Your task to perform on an android device: Open accessibility settings Image 0: 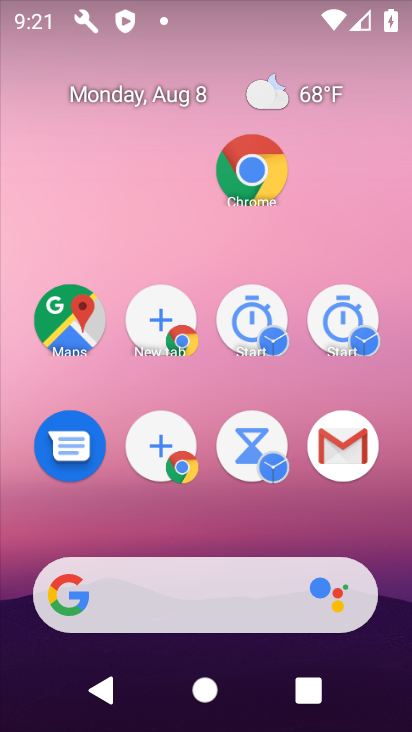
Step 0: drag from (213, 541) to (226, 145)
Your task to perform on an android device: Open accessibility settings Image 1: 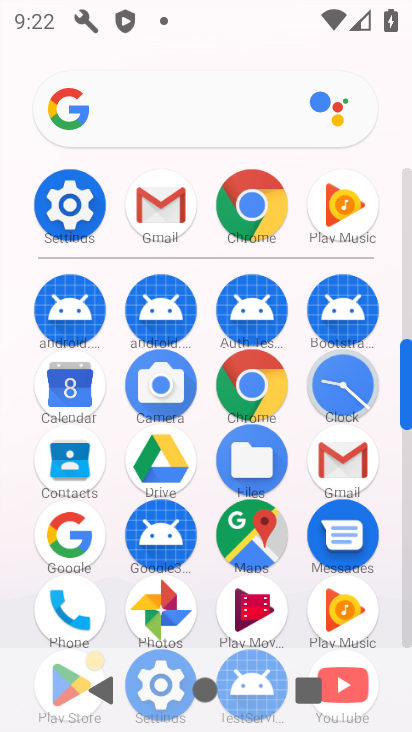
Step 1: click (66, 209)
Your task to perform on an android device: Open accessibility settings Image 2: 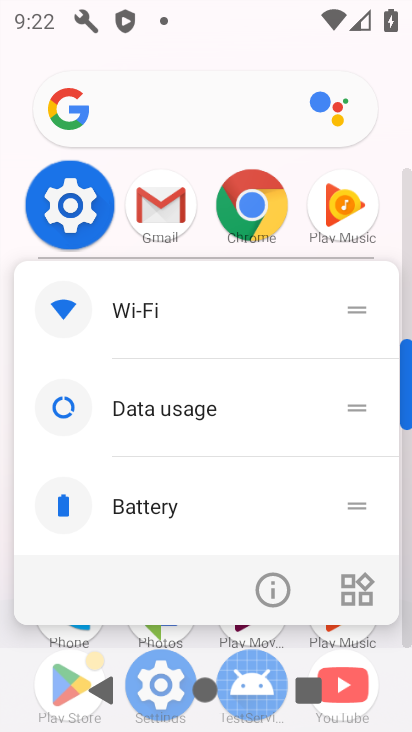
Step 2: click (65, 209)
Your task to perform on an android device: Open accessibility settings Image 3: 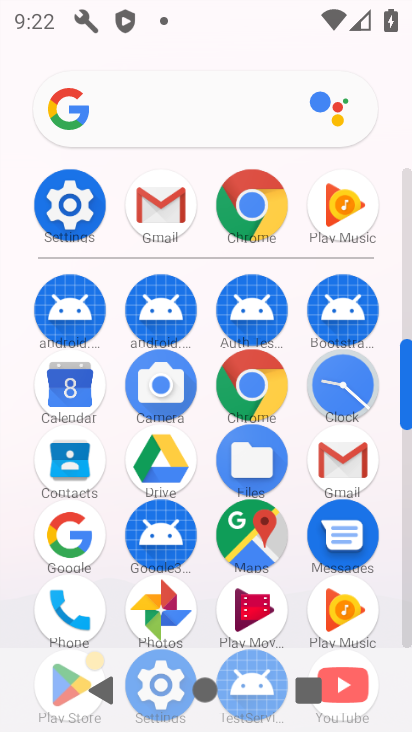
Step 3: click (64, 208)
Your task to perform on an android device: Open accessibility settings Image 4: 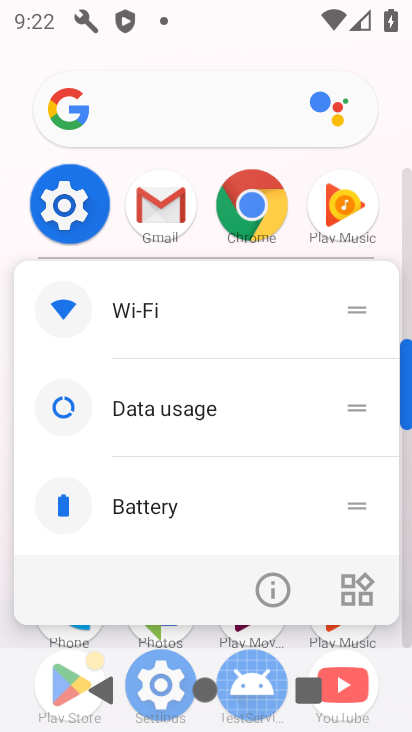
Step 4: click (80, 213)
Your task to perform on an android device: Open accessibility settings Image 5: 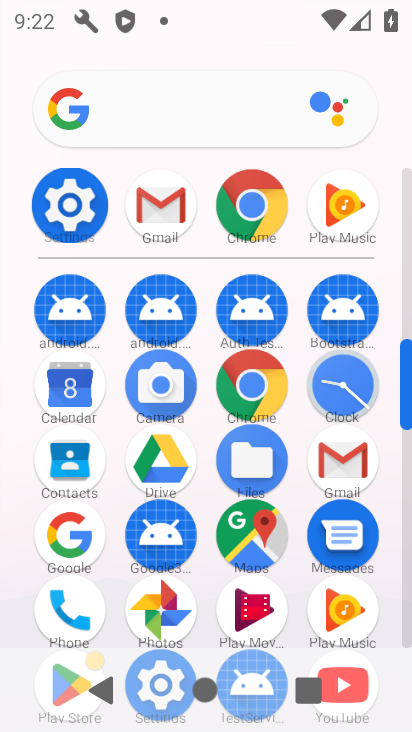
Step 5: click (82, 227)
Your task to perform on an android device: Open accessibility settings Image 6: 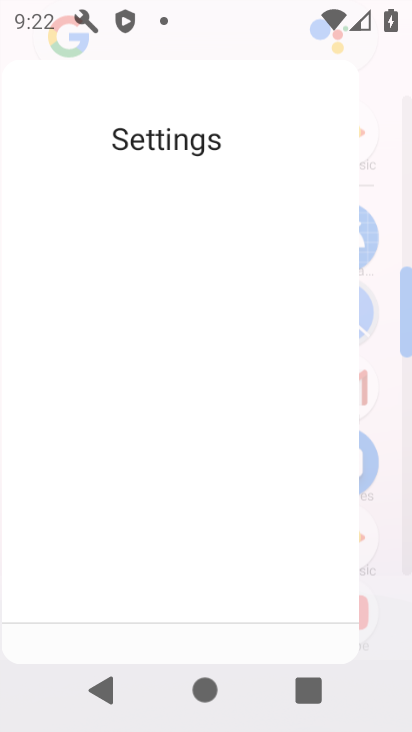
Step 6: click (75, 232)
Your task to perform on an android device: Open accessibility settings Image 7: 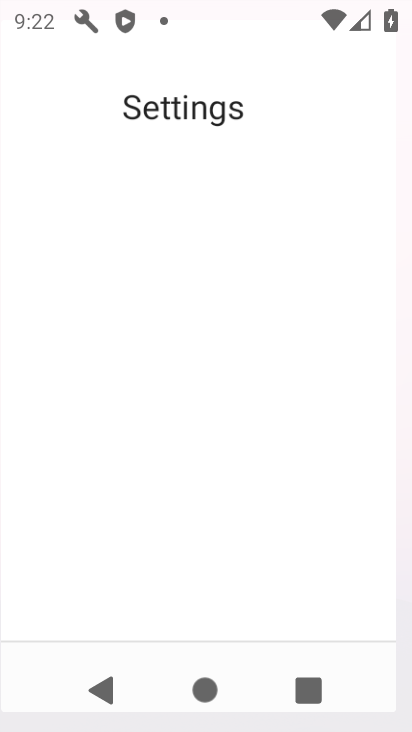
Step 7: click (78, 231)
Your task to perform on an android device: Open accessibility settings Image 8: 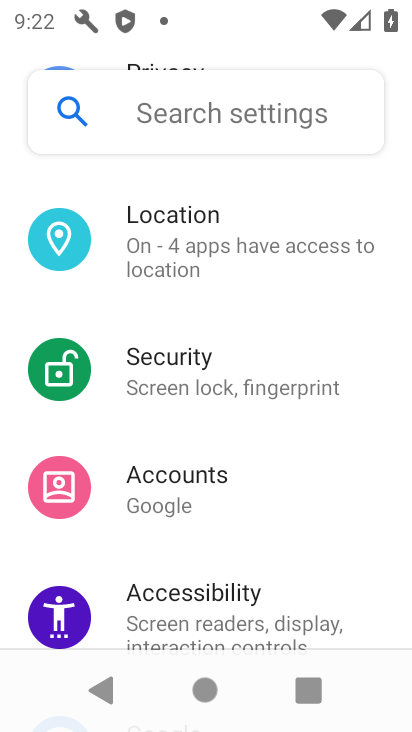
Step 8: click (163, 610)
Your task to perform on an android device: Open accessibility settings Image 9: 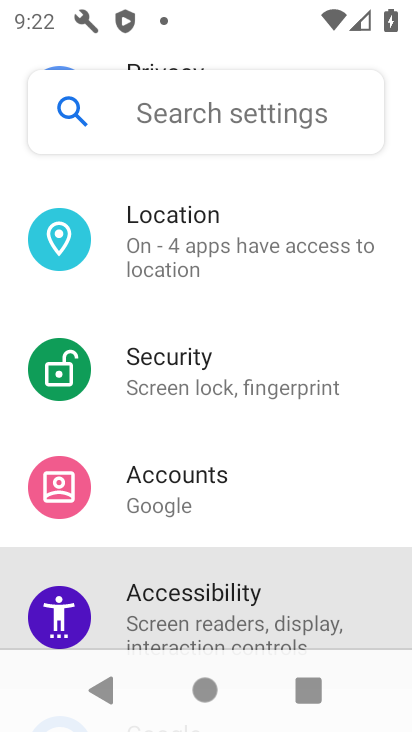
Step 9: click (164, 608)
Your task to perform on an android device: Open accessibility settings Image 10: 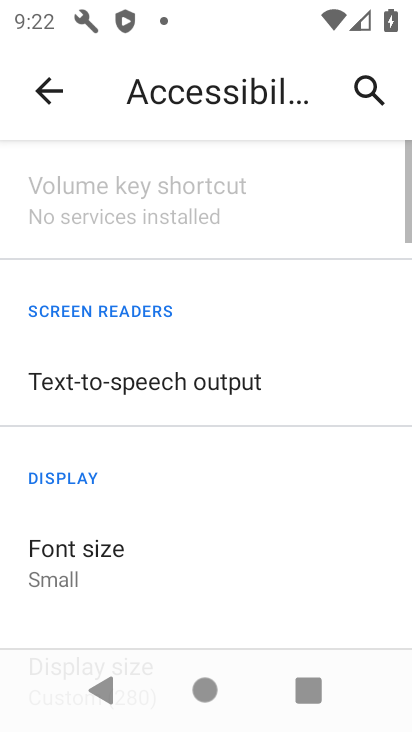
Step 10: click (177, 591)
Your task to perform on an android device: Open accessibility settings Image 11: 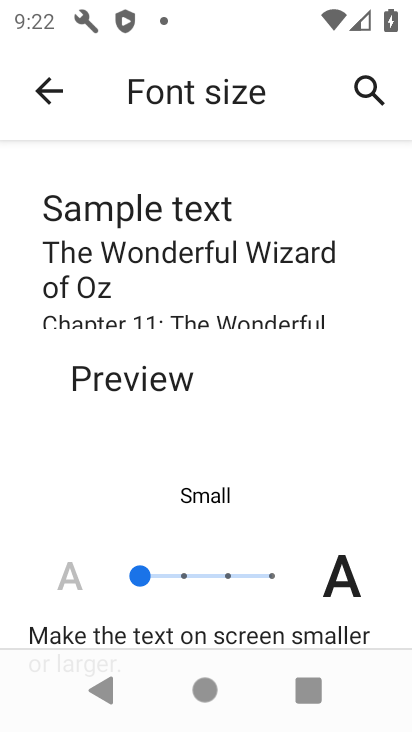
Step 11: click (47, 90)
Your task to perform on an android device: Open accessibility settings Image 12: 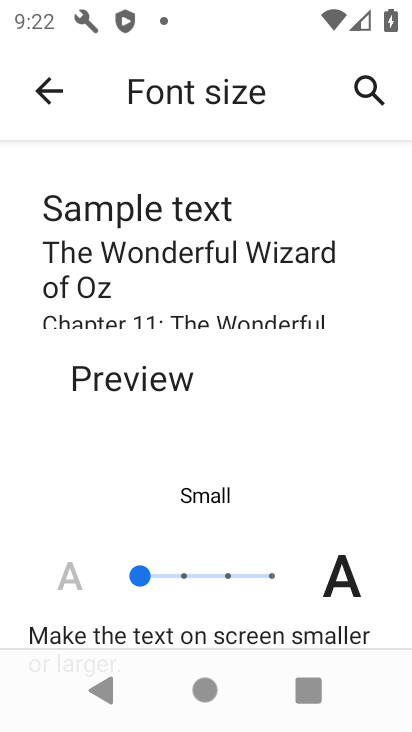
Step 12: click (47, 90)
Your task to perform on an android device: Open accessibility settings Image 13: 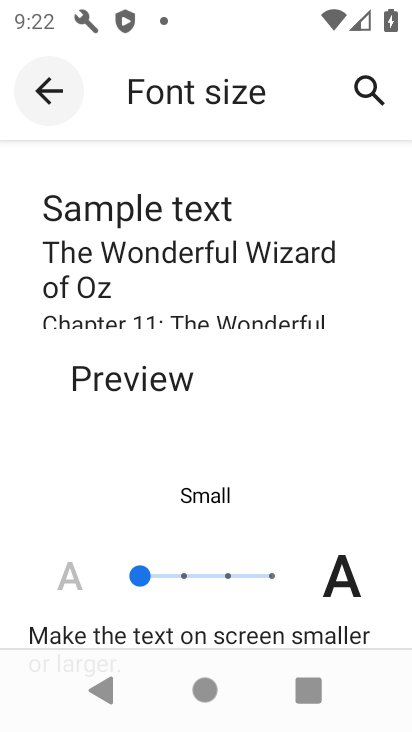
Step 13: click (47, 89)
Your task to perform on an android device: Open accessibility settings Image 14: 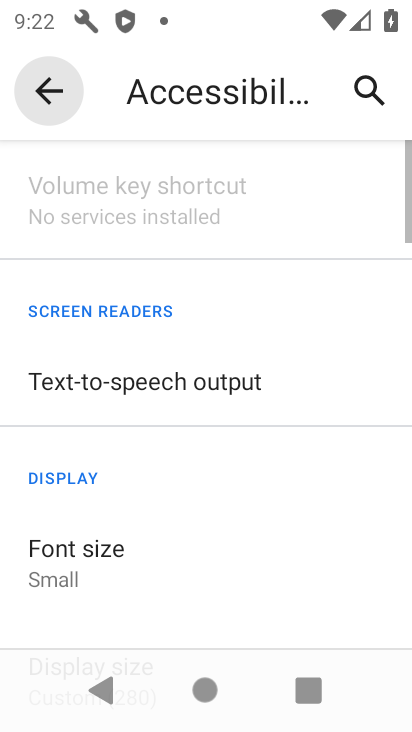
Step 14: click (48, 88)
Your task to perform on an android device: Open accessibility settings Image 15: 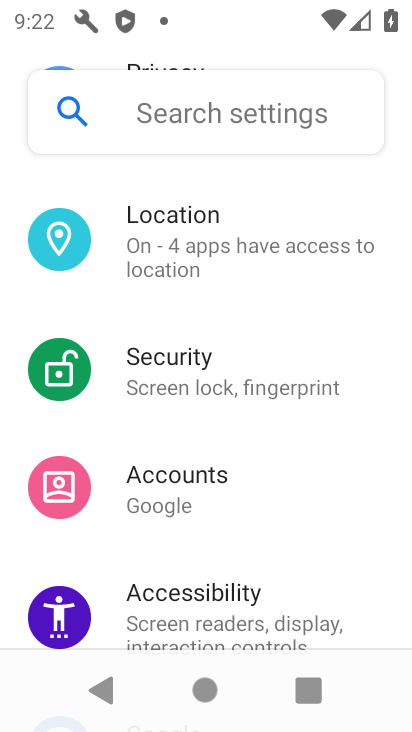
Step 15: drag from (201, 565) to (182, 157)
Your task to perform on an android device: Open accessibility settings Image 16: 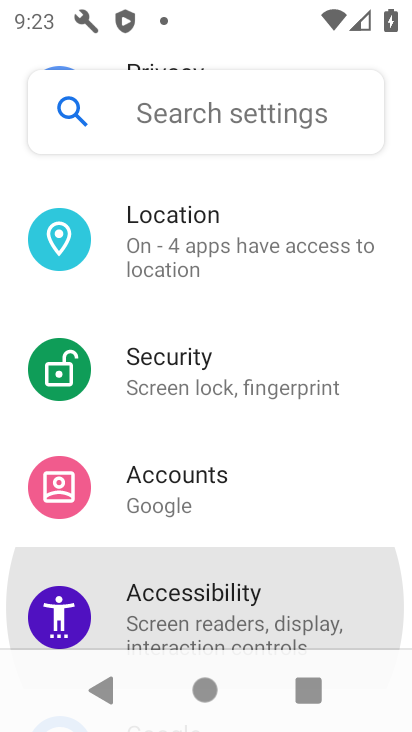
Step 16: drag from (192, 482) to (158, 287)
Your task to perform on an android device: Open accessibility settings Image 17: 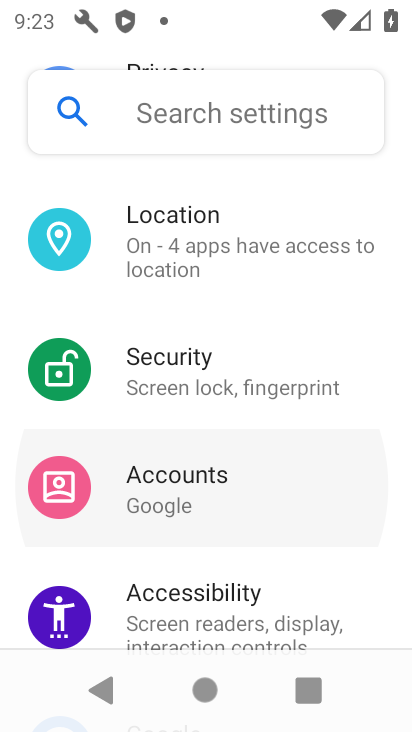
Step 17: drag from (143, 441) to (113, 220)
Your task to perform on an android device: Open accessibility settings Image 18: 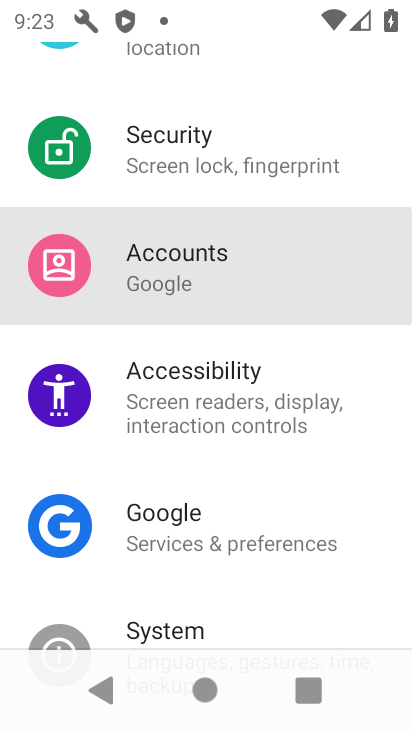
Step 18: drag from (193, 420) to (170, 205)
Your task to perform on an android device: Open accessibility settings Image 19: 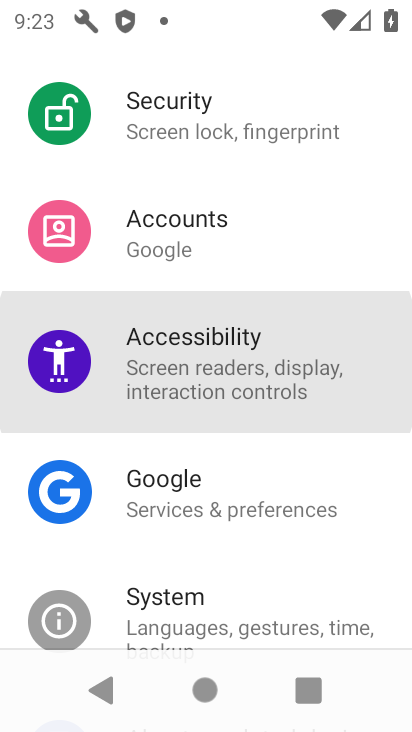
Step 19: click (168, 151)
Your task to perform on an android device: Open accessibility settings Image 20: 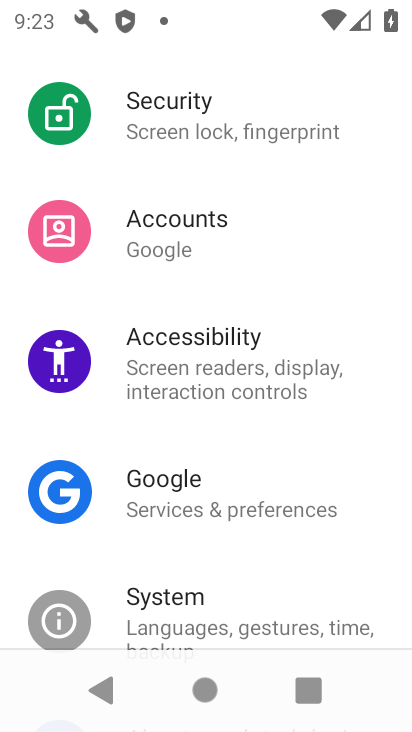
Step 20: drag from (172, 317) to (152, 171)
Your task to perform on an android device: Open accessibility settings Image 21: 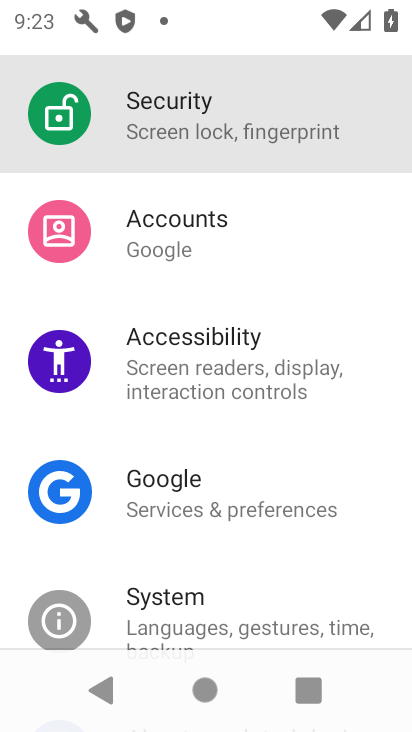
Step 21: drag from (222, 529) to (189, 257)
Your task to perform on an android device: Open accessibility settings Image 22: 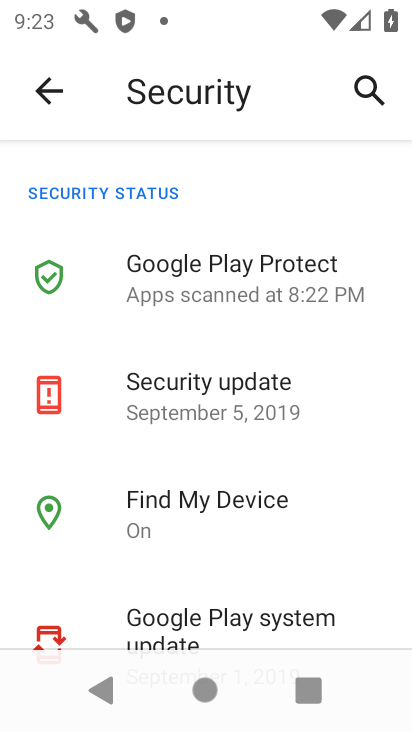
Step 22: click (50, 90)
Your task to perform on an android device: Open accessibility settings Image 23: 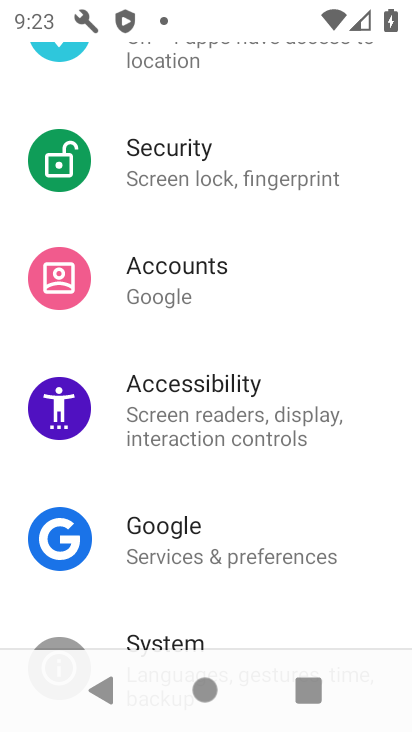
Step 23: click (173, 417)
Your task to perform on an android device: Open accessibility settings Image 24: 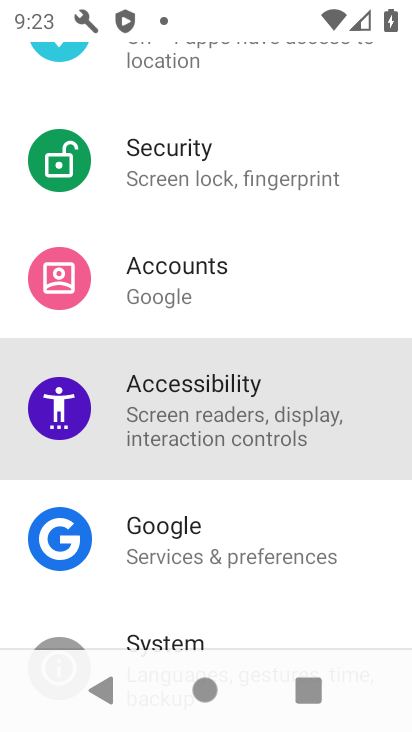
Step 24: click (172, 417)
Your task to perform on an android device: Open accessibility settings Image 25: 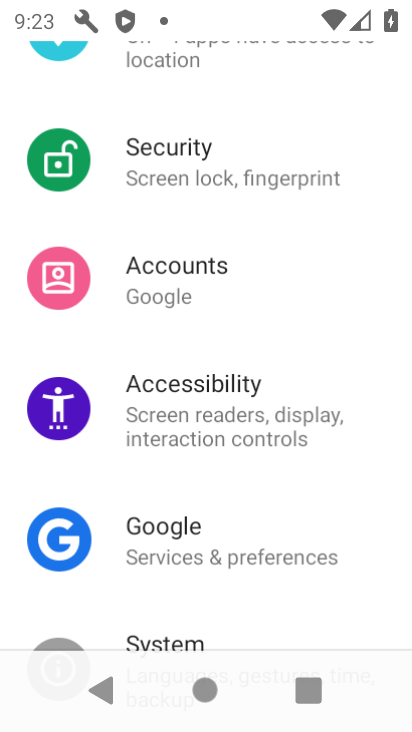
Step 25: click (172, 417)
Your task to perform on an android device: Open accessibility settings Image 26: 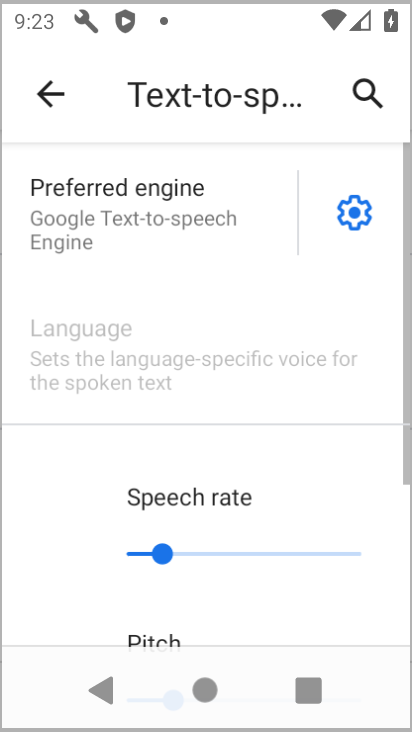
Step 26: task complete